Your task to perform on an android device: toggle sleep mode Image 0: 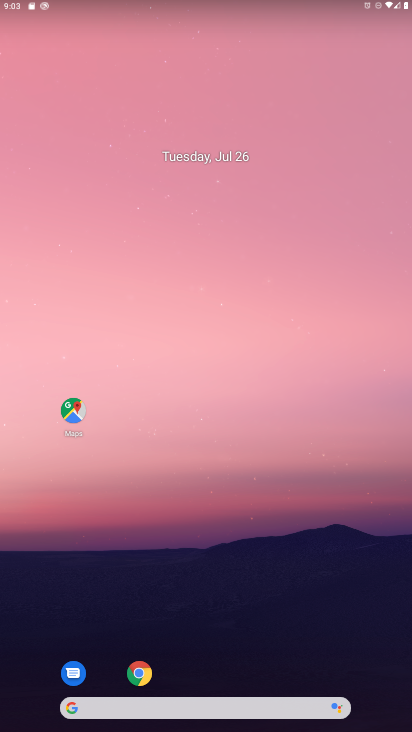
Step 0: drag from (377, 655) to (186, 16)
Your task to perform on an android device: toggle sleep mode Image 1: 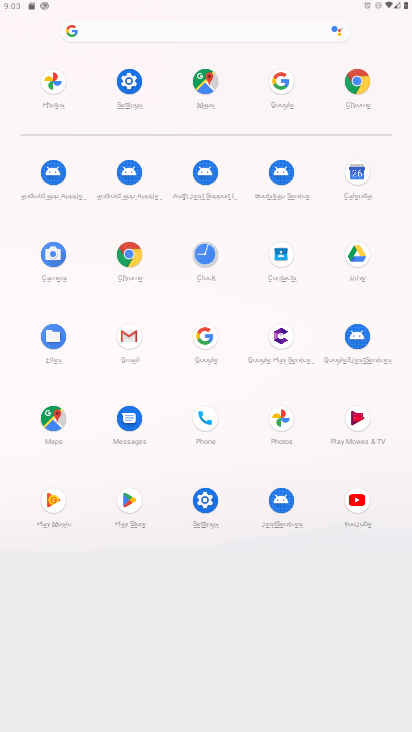
Step 1: click (199, 498)
Your task to perform on an android device: toggle sleep mode Image 2: 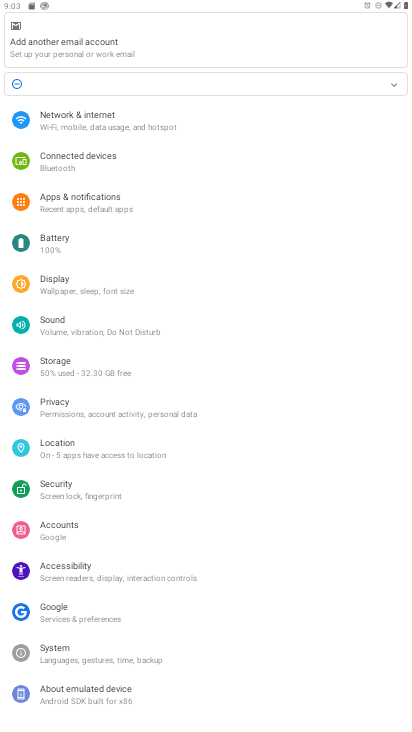
Step 2: task complete